Your task to perform on an android device: remove spam from my inbox in the gmail app Image 0: 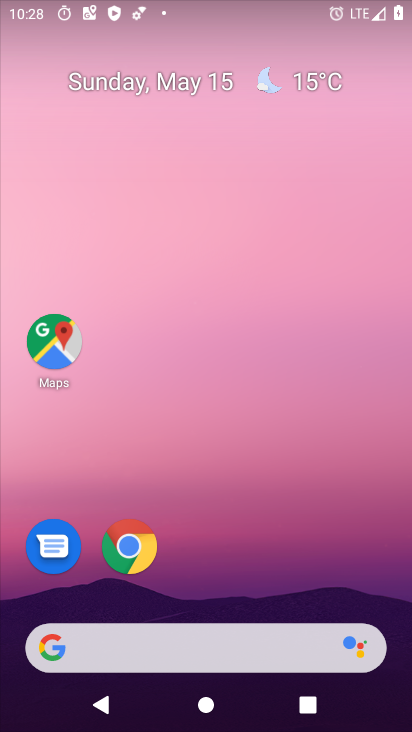
Step 0: drag from (251, 670) to (201, 248)
Your task to perform on an android device: remove spam from my inbox in the gmail app Image 1: 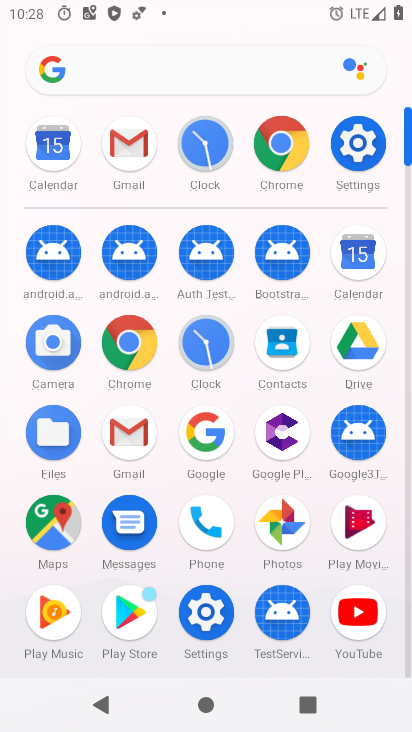
Step 1: click (125, 418)
Your task to perform on an android device: remove spam from my inbox in the gmail app Image 2: 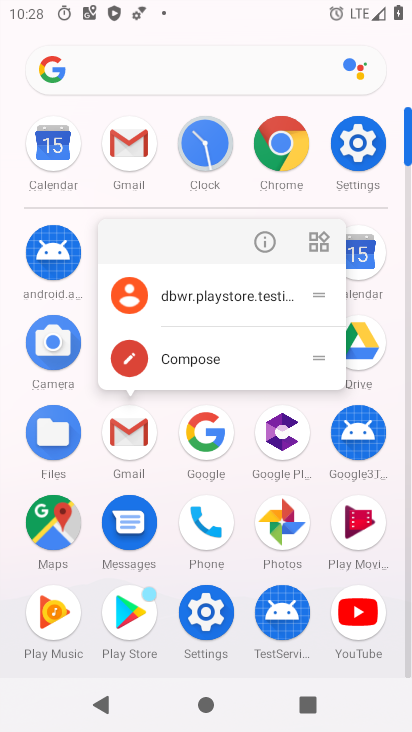
Step 2: click (126, 416)
Your task to perform on an android device: remove spam from my inbox in the gmail app Image 3: 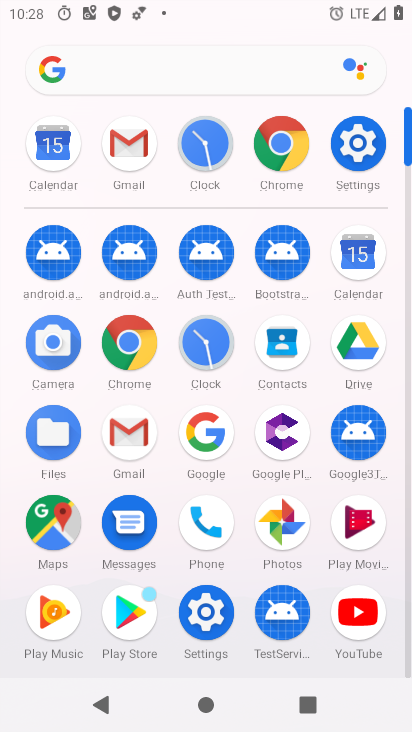
Step 3: click (128, 429)
Your task to perform on an android device: remove spam from my inbox in the gmail app Image 4: 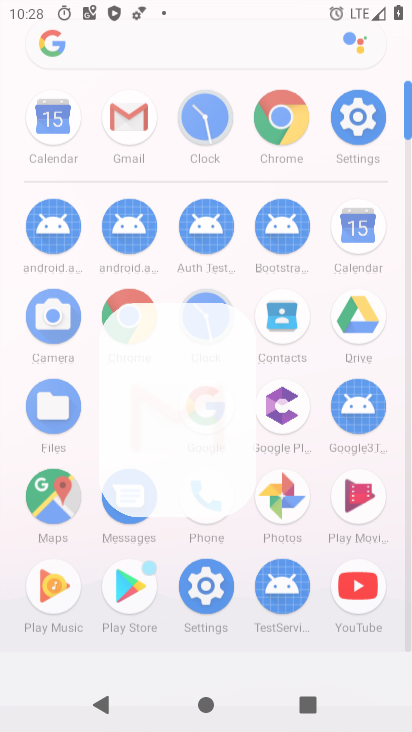
Step 4: click (128, 429)
Your task to perform on an android device: remove spam from my inbox in the gmail app Image 5: 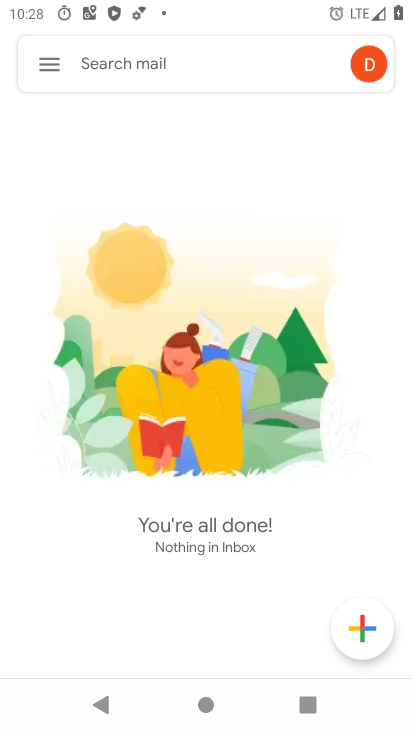
Step 5: click (43, 59)
Your task to perform on an android device: remove spam from my inbox in the gmail app Image 6: 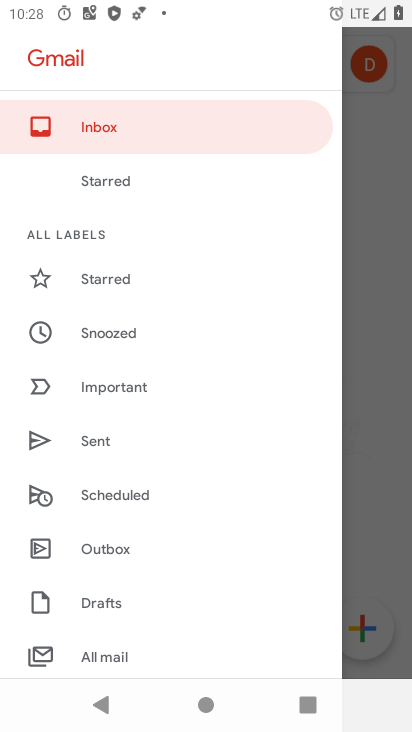
Step 6: click (212, 559)
Your task to perform on an android device: remove spam from my inbox in the gmail app Image 7: 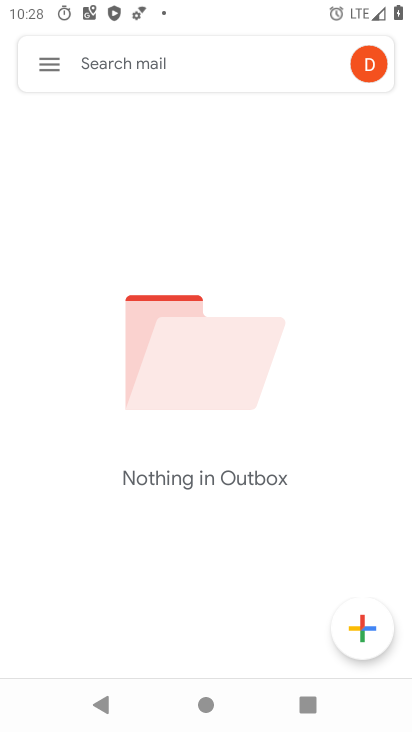
Step 7: click (39, 51)
Your task to perform on an android device: remove spam from my inbox in the gmail app Image 8: 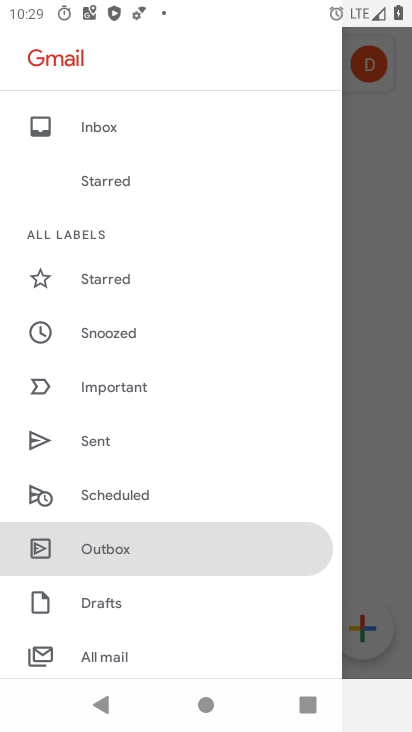
Step 8: drag from (136, 494) to (98, 174)
Your task to perform on an android device: remove spam from my inbox in the gmail app Image 9: 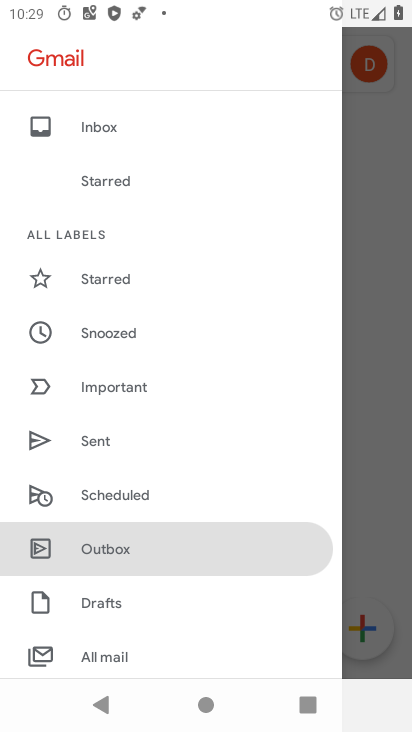
Step 9: drag from (113, 631) to (93, 246)
Your task to perform on an android device: remove spam from my inbox in the gmail app Image 10: 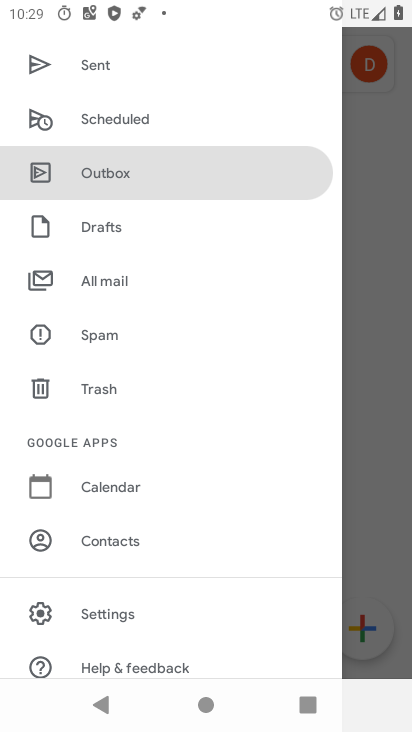
Step 10: click (88, 341)
Your task to perform on an android device: remove spam from my inbox in the gmail app Image 11: 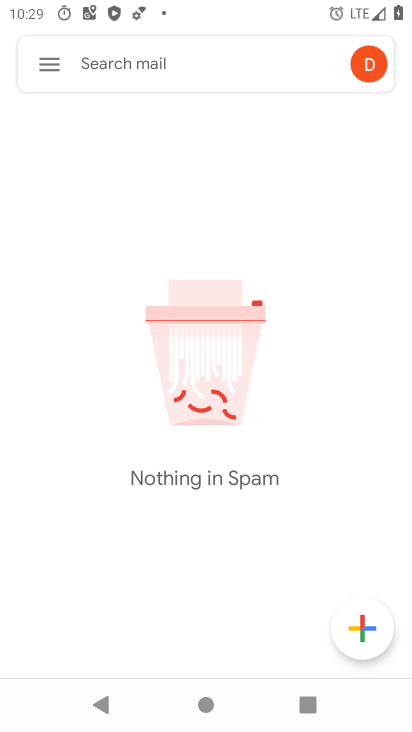
Step 11: task complete